Your task to perform on an android device: Add usb-c to the cart on ebay.com Image 0: 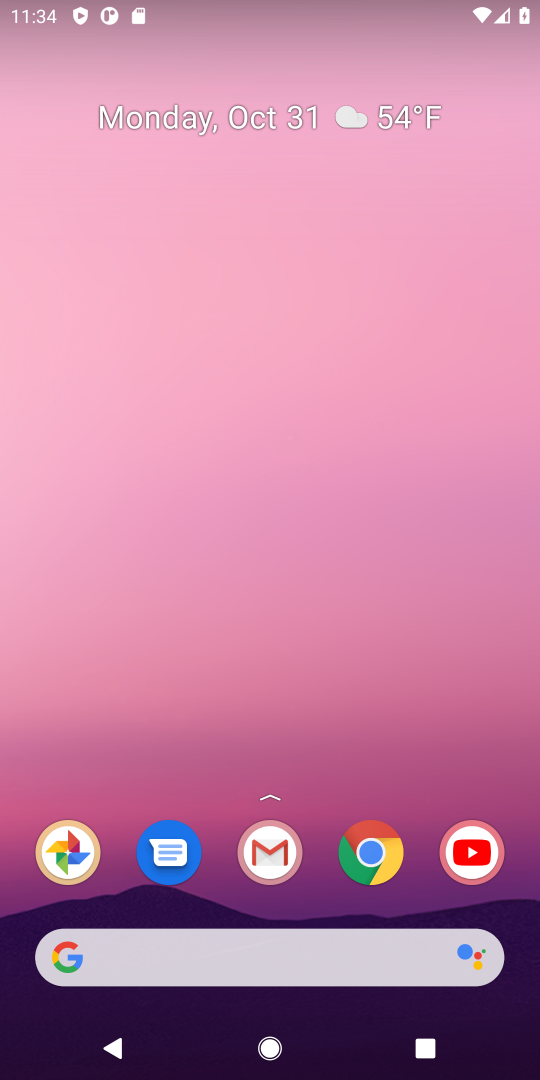
Step 0: click (383, 863)
Your task to perform on an android device: Add usb-c to the cart on ebay.com Image 1: 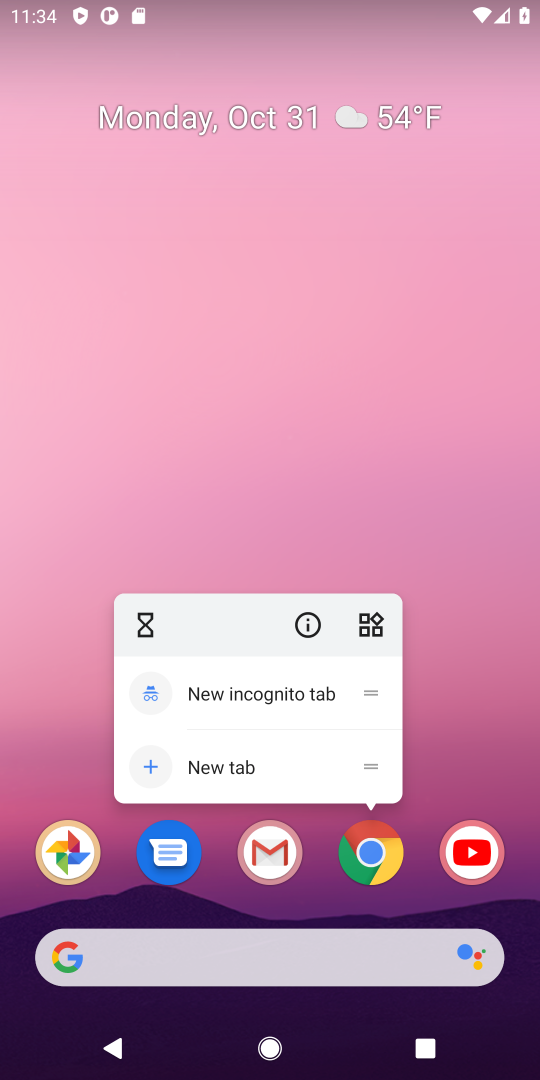
Step 1: click (366, 861)
Your task to perform on an android device: Add usb-c to the cart on ebay.com Image 2: 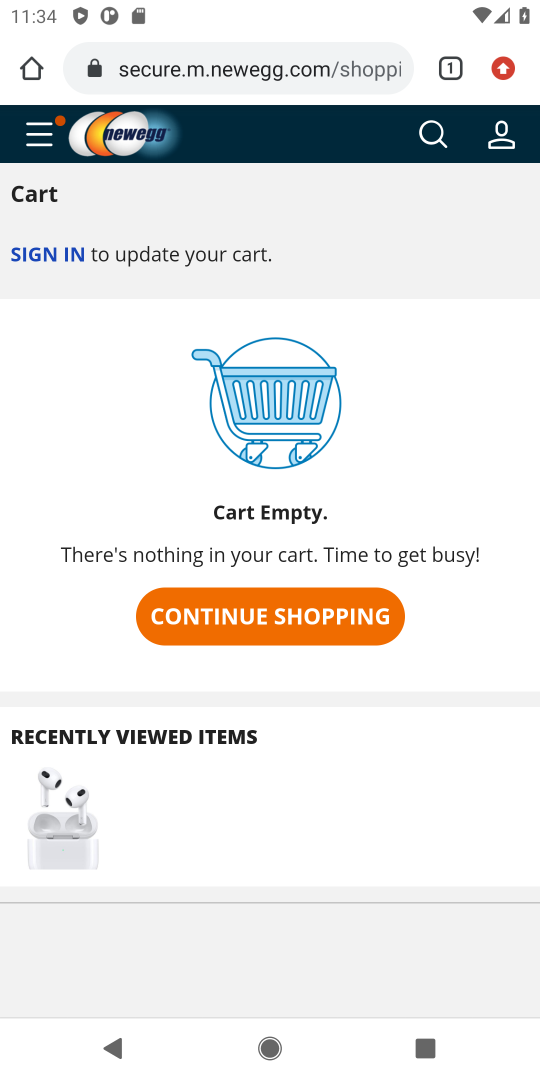
Step 2: click (279, 60)
Your task to perform on an android device: Add usb-c to the cart on ebay.com Image 3: 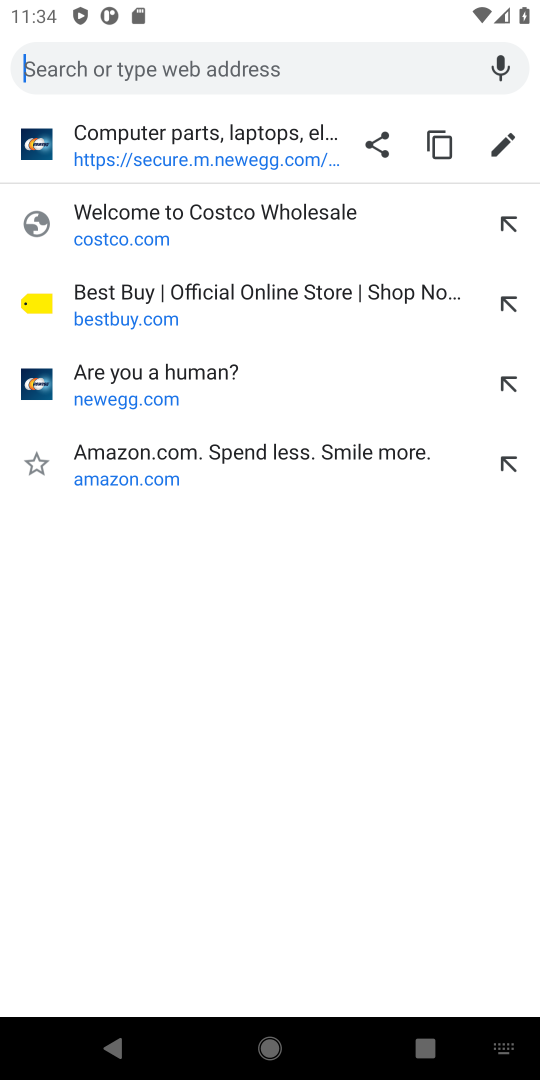
Step 3: type "ebay.com"
Your task to perform on an android device: Add usb-c to the cart on ebay.com Image 4: 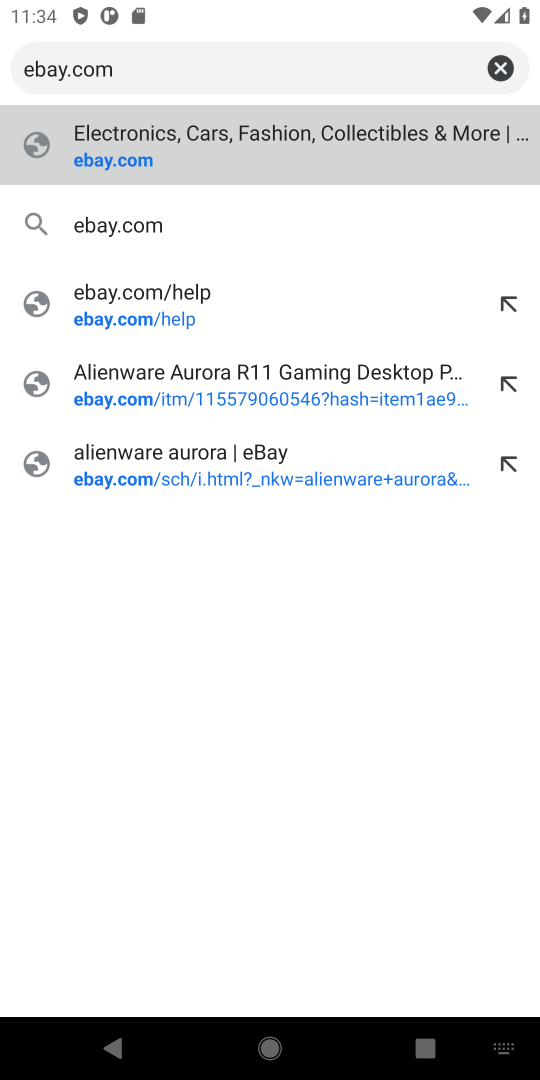
Step 4: type ""
Your task to perform on an android device: Add usb-c to the cart on ebay.com Image 5: 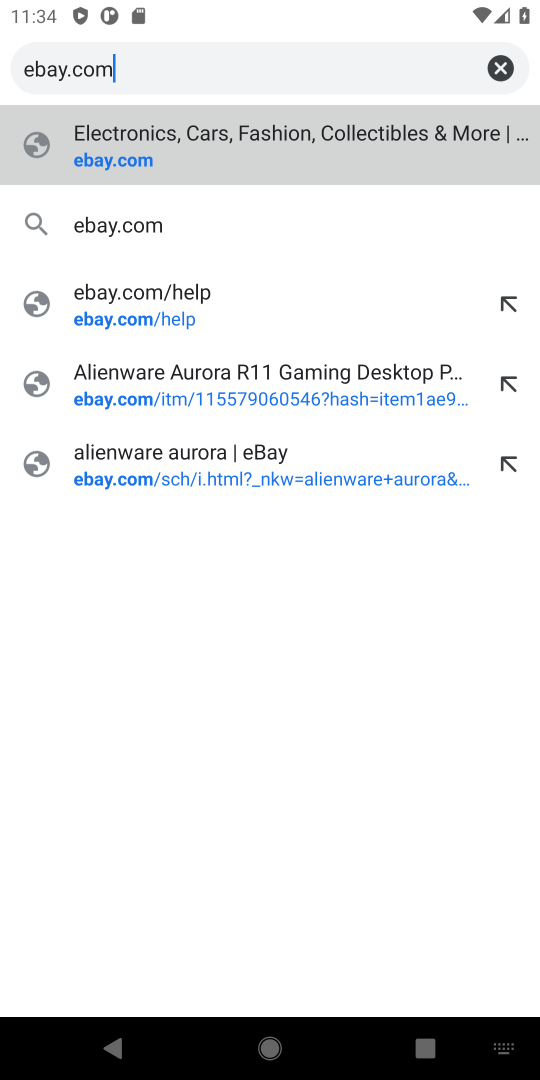
Step 5: press enter
Your task to perform on an android device: Add usb-c to the cart on ebay.com Image 6: 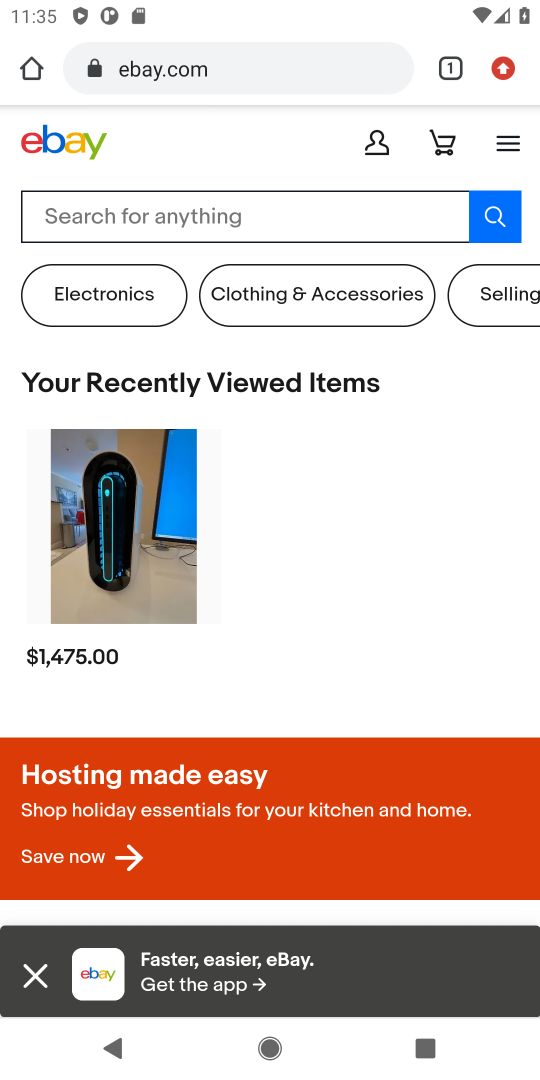
Step 6: click (219, 216)
Your task to perform on an android device: Add usb-c to the cart on ebay.com Image 7: 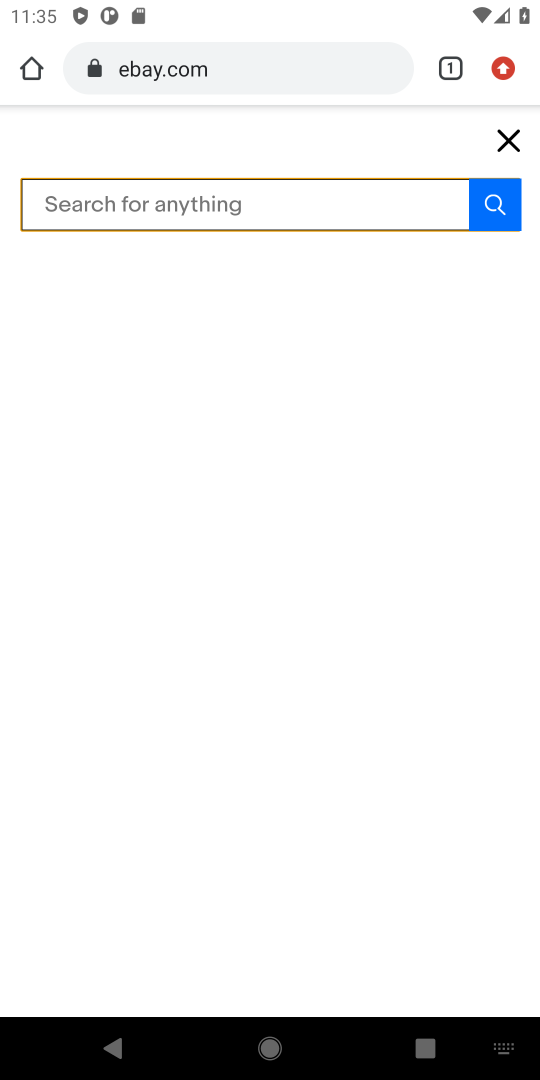
Step 7: type "usb-c"
Your task to perform on an android device: Add usb-c to the cart on ebay.com Image 8: 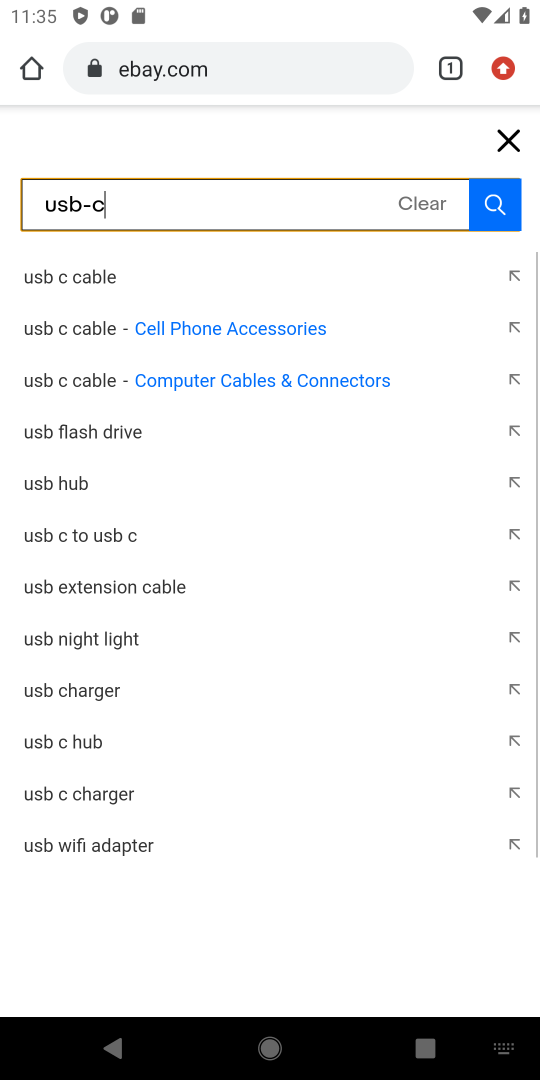
Step 8: type ""
Your task to perform on an android device: Add usb-c to the cart on ebay.com Image 9: 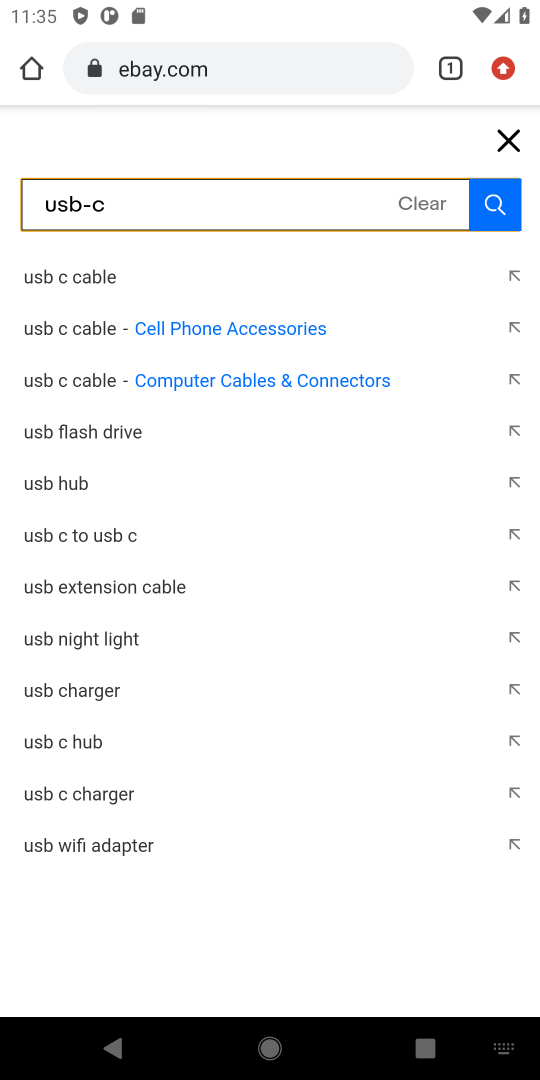
Step 9: click (502, 213)
Your task to perform on an android device: Add usb-c to the cart on ebay.com Image 10: 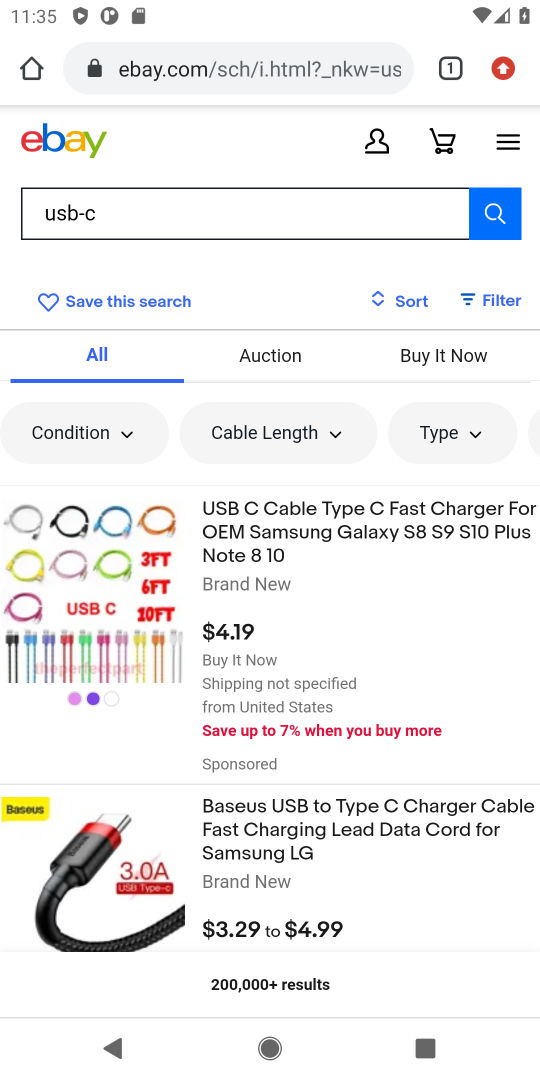
Step 10: click (375, 527)
Your task to perform on an android device: Add usb-c to the cart on ebay.com Image 11: 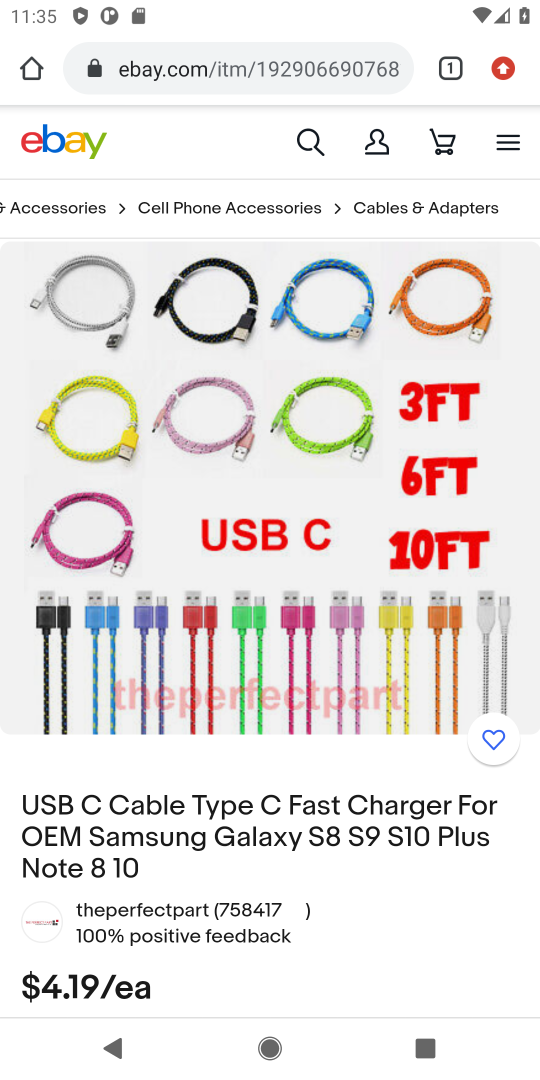
Step 11: drag from (345, 928) to (369, 362)
Your task to perform on an android device: Add usb-c to the cart on ebay.com Image 12: 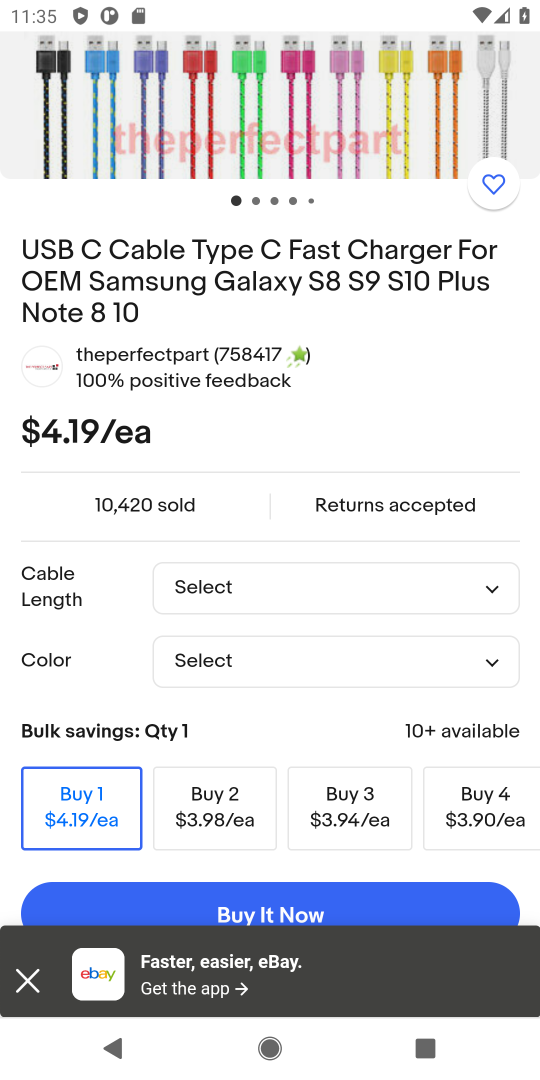
Step 12: click (477, 595)
Your task to perform on an android device: Add usb-c to the cart on ebay.com Image 13: 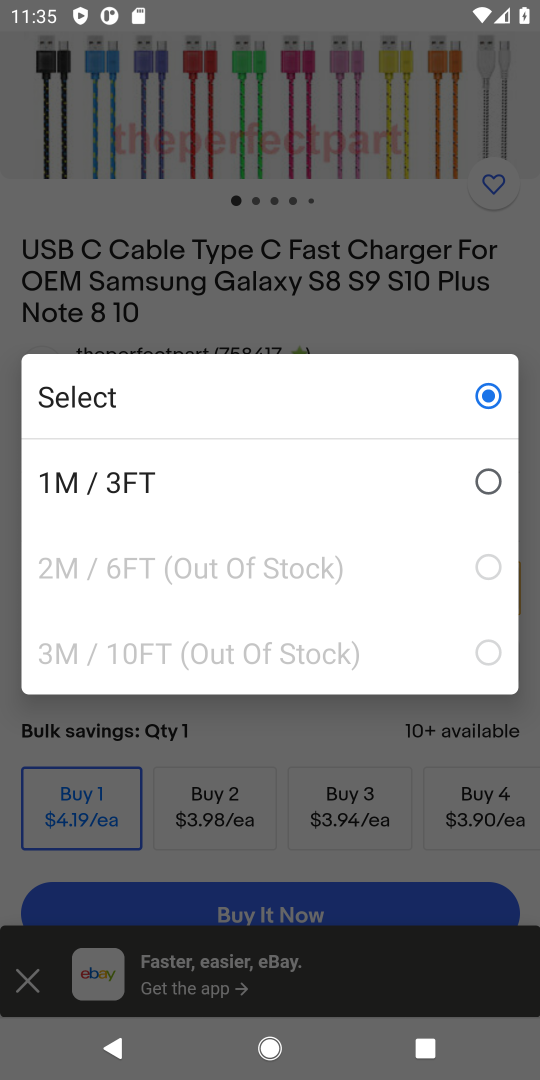
Step 13: click (414, 499)
Your task to perform on an android device: Add usb-c to the cart on ebay.com Image 14: 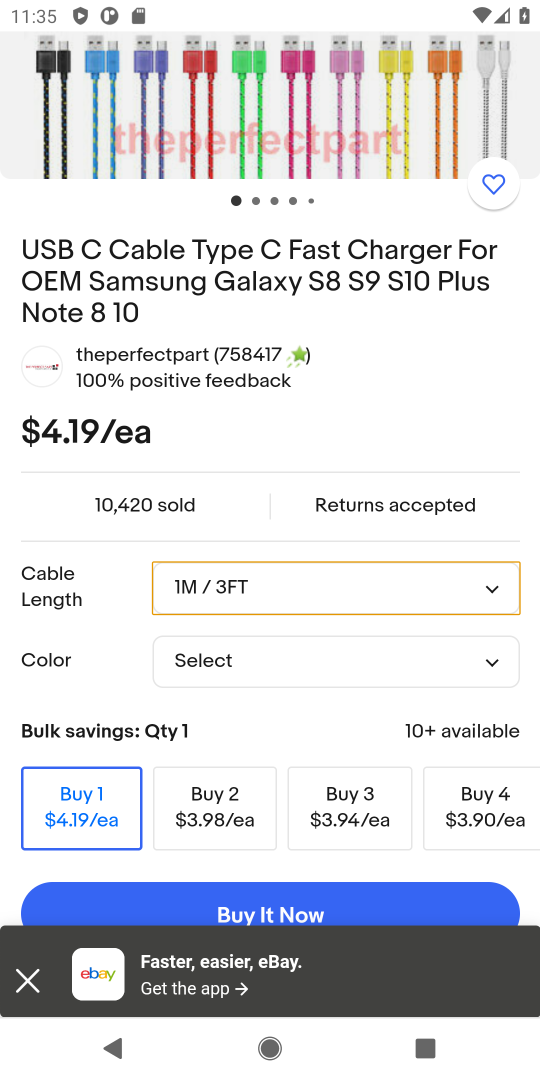
Step 14: click (397, 672)
Your task to perform on an android device: Add usb-c to the cart on ebay.com Image 15: 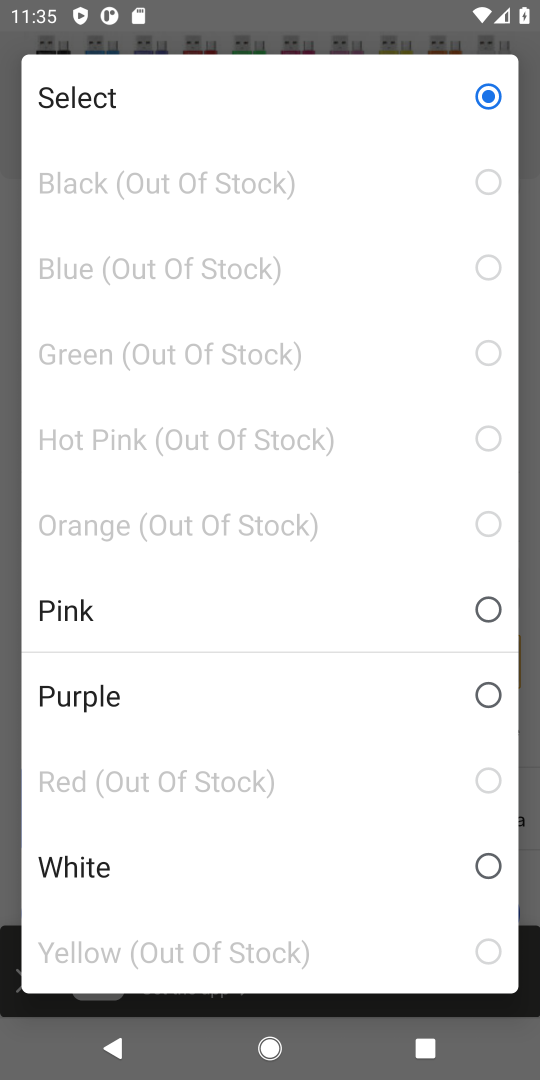
Step 15: click (371, 620)
Your task to perform on an android device: Add usb-c to the cart on ebay.com Image 16: 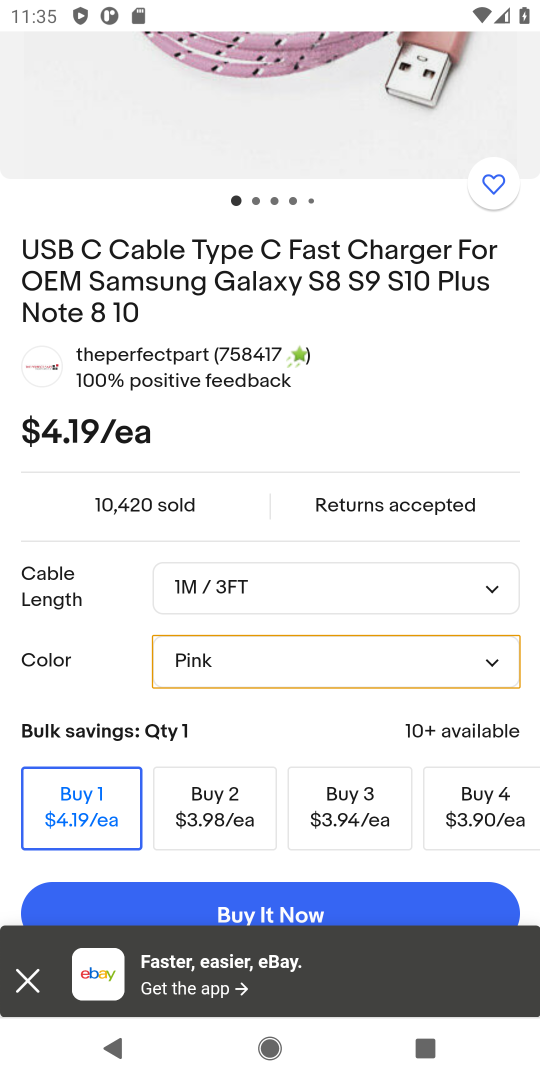
Step 16: drag from (370, 867) to (391, 569)
Your task to perform on an android device: Add usb-c to the cart on ebay.com Image 17: 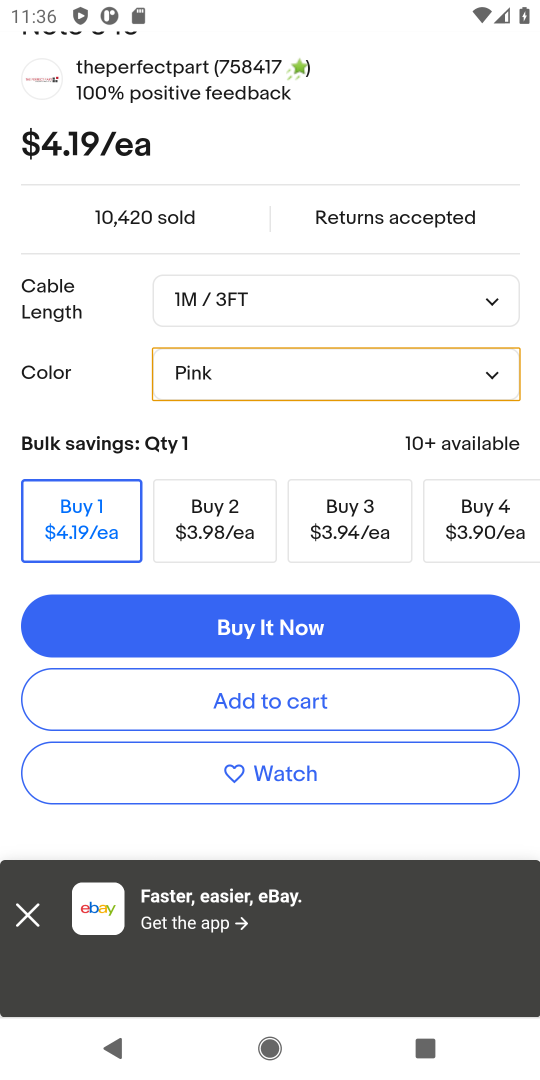
Step 17: click (314, 697)
Your task to perform on an android device: Add usb-c to the cart on ebay.com Image 18: 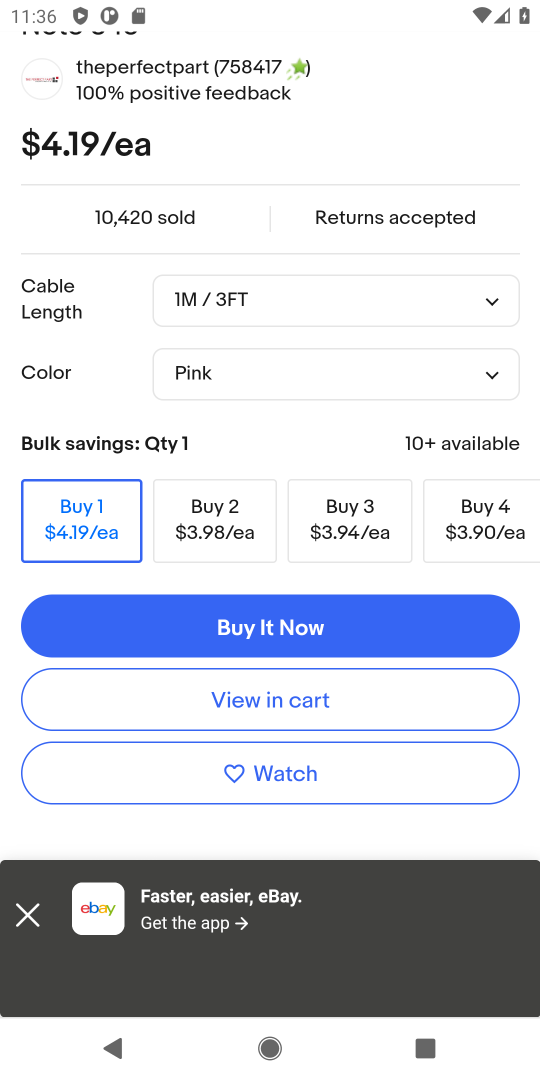
Step 18: click (314, 697)
Your task to perform on an android device: Add usb-c to the cart on ebay.com Image 19: 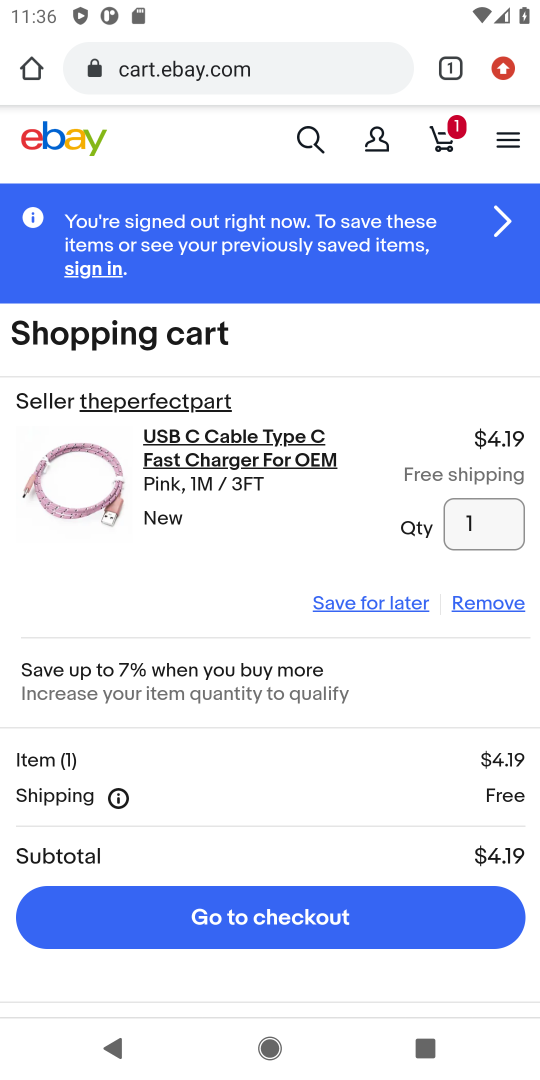
Step 19: task complete